Your task to perform on an android device: open a bookmark in the chrome app Image 0: 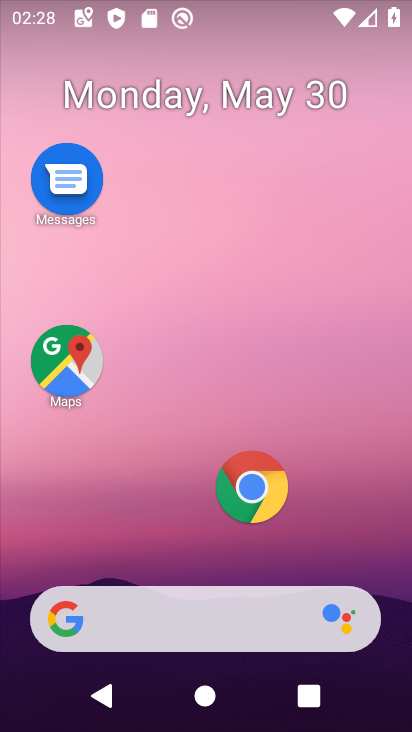
Step 0: click (250, 500)
Your task to perform on an android device: open a bookmark in the chrome app Image 1: 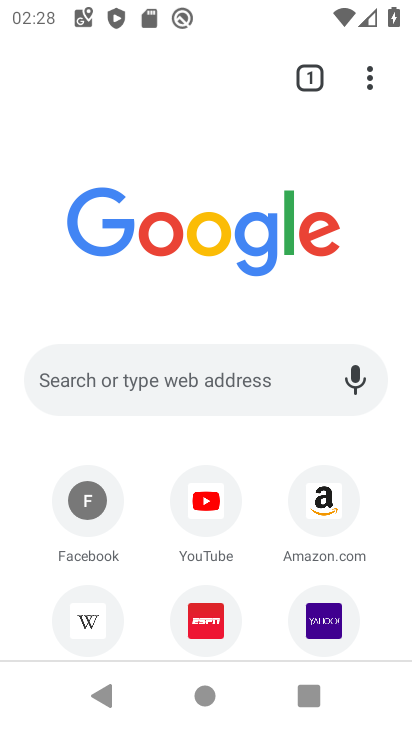
Step 1: click (370, 83)
Your task to perform on an android device: open a bookmark in the chrome app Image 2: 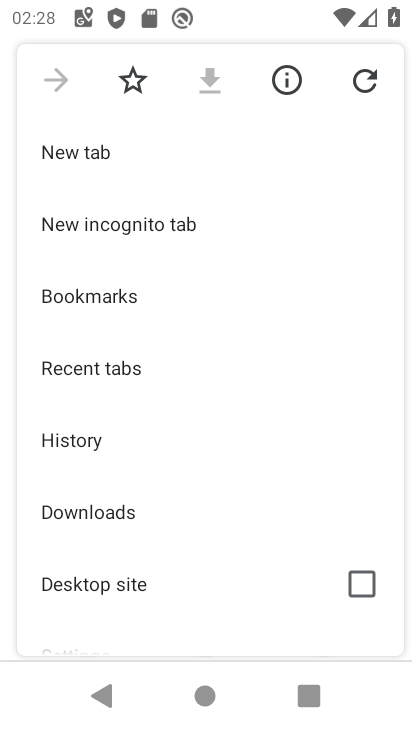
Step 2: click (93, 291)
Your task to perform on an android device: open a bookmark in the chrome app Image 3: 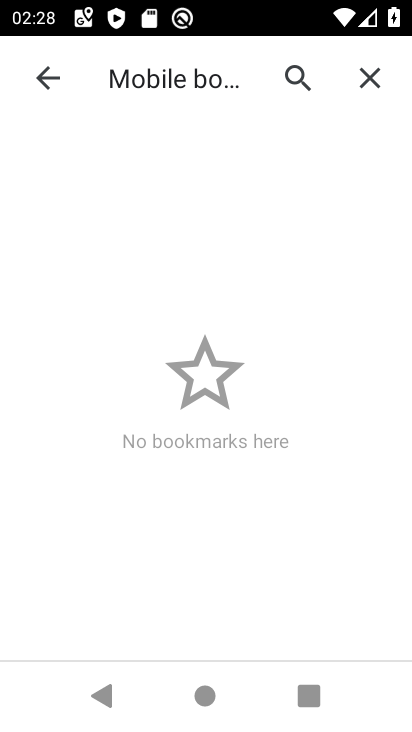
Step 3: task complete